Your task to perform on an android device: What's on my calendar today? Image 0: 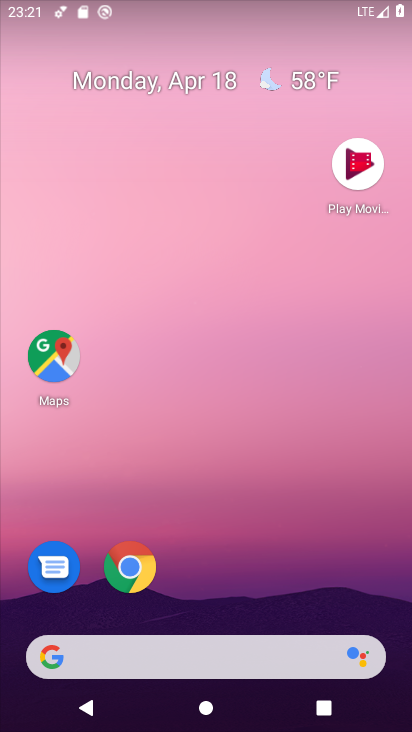
Step 0: click (405, 580)
Your task to perform on an android device: What's on my calendar today? Image 1: 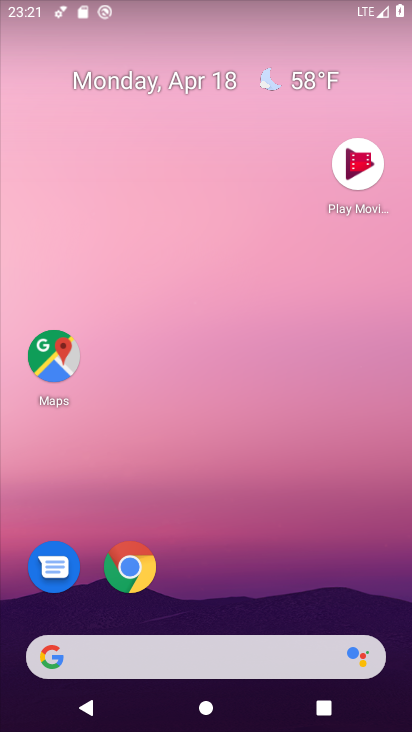
Step 1: drag from (235, 614) to (262, 143)
Your task to perform on an android device: What's on my calendar today? Image 2: 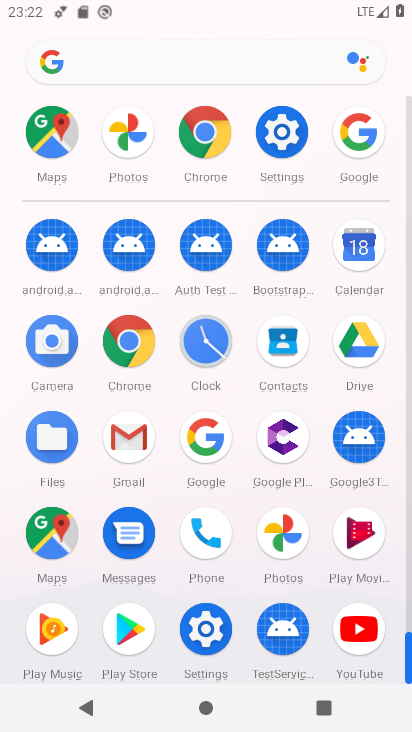
Step 2: click (275, 120)
Your task to perform on an android device: What's on my calendar today? Image 3: 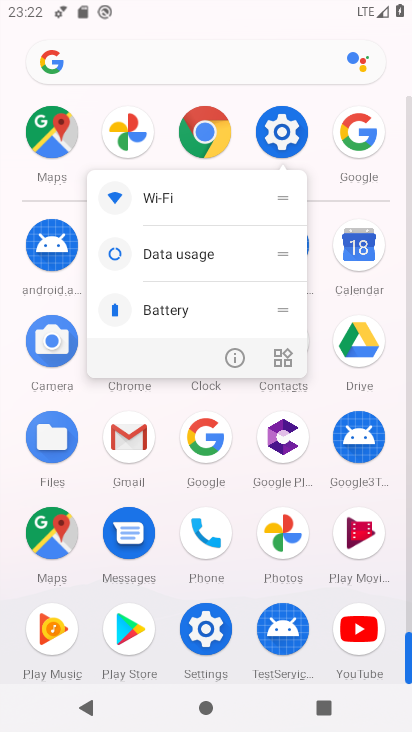
Step 3: click (351, 224)
Your task to perform on an android device: What's on my calendar today? Image 4: 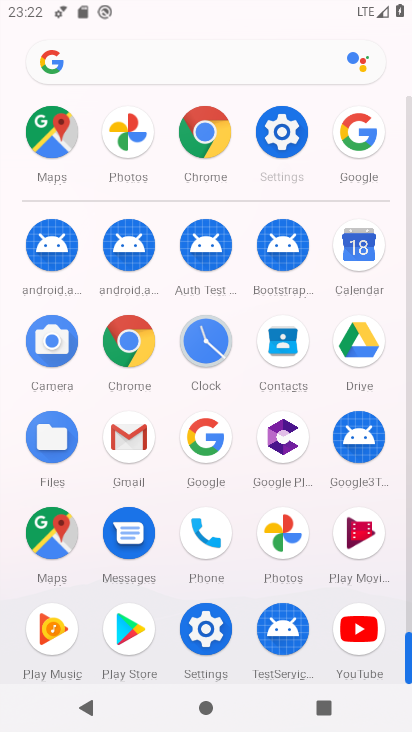
Step 4: click (347, 228)
Your task to perform on an android device: What's on my calendar today? Image 5: 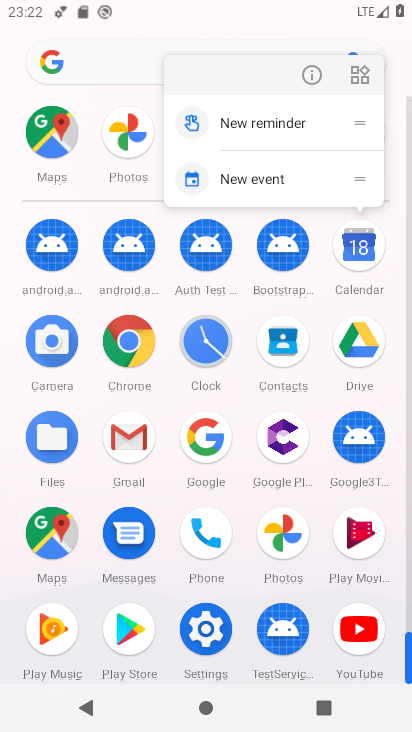
Step 5: click (311, 76)
Your task to perform on an android device: What's on my calendar today? Image 6: 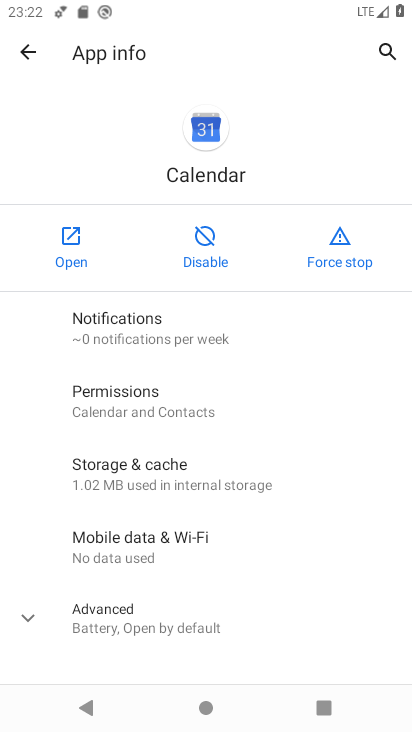
Step 6: click (56, 236)
Your task to perform on an android device: What's on my calendar today? Image 7: 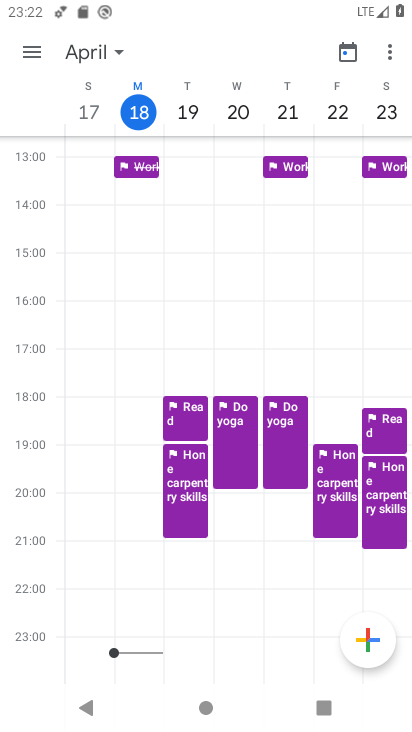
Step 7: drag from (341, 432) to (103, 432)
Your task to perform on an android device: What's on my calendar today? Image 8: 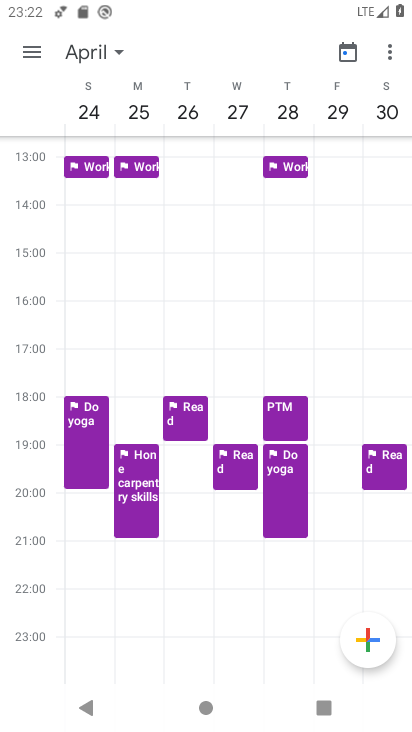
Step 8: drag from (179, 438) to (404, 395)
Your task to perform on an android device: What's on my calendar today? Image 9: 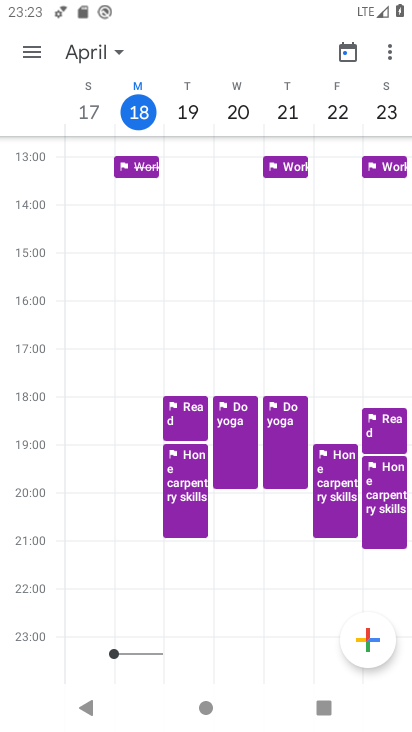
Step 9: drag from (273, 506) to (43, 485)
Your task to perform on an android device: What's on my calendar today? Image 10: 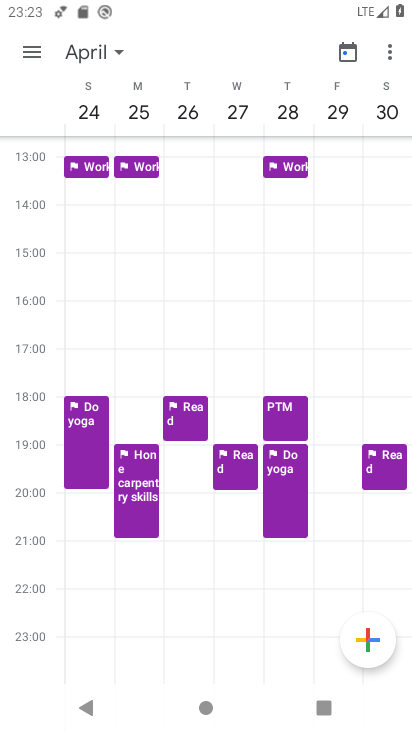
Step 10: drag from (332, 514) to (227, 513)
Your task to perform on an android device: What's on my calendar today? Image 11: 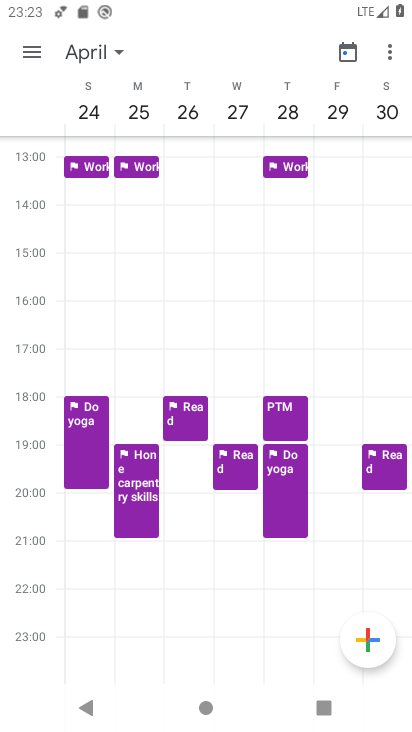
Step 11: drag from (158, 134) to (408, 124)
Your task to perform on an android device: What's on my calendar today? Image 12: 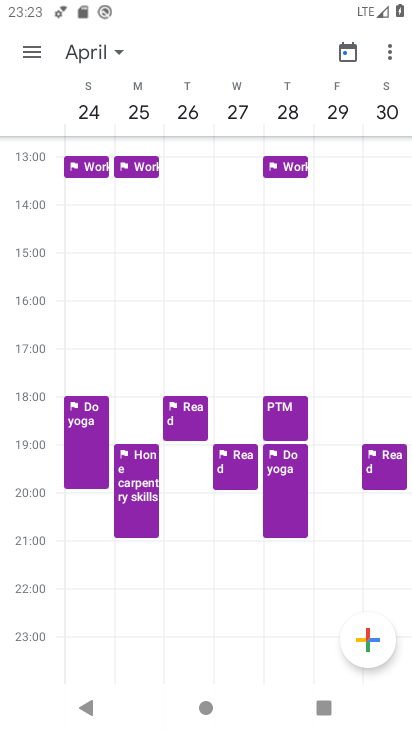
Step 12: drag from (100, 103) to (403, 100)
Your task to perform on an android device: What's on my calendar today? Image 13: 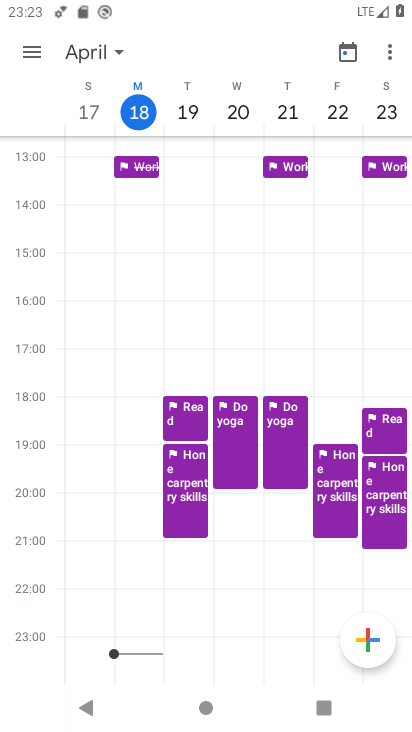
Step 13: drag from (116, 116) to (186, 116)
Your task to perform on an android device: What's on my calendar today? Image 14: 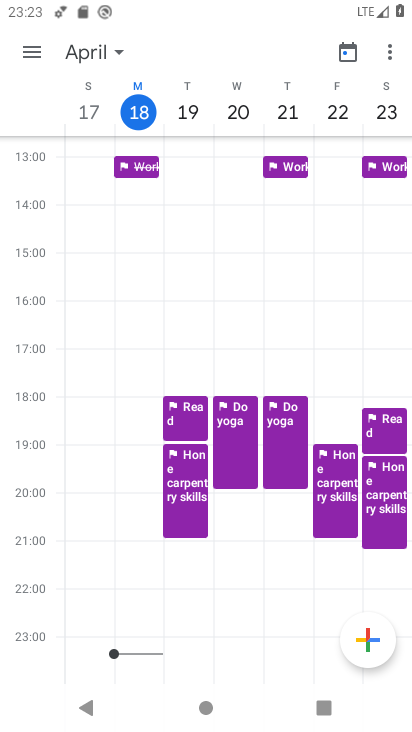
Step 14: click (151, 107)
Your task to perform on an android device: What's on my calendar today? Image 15: 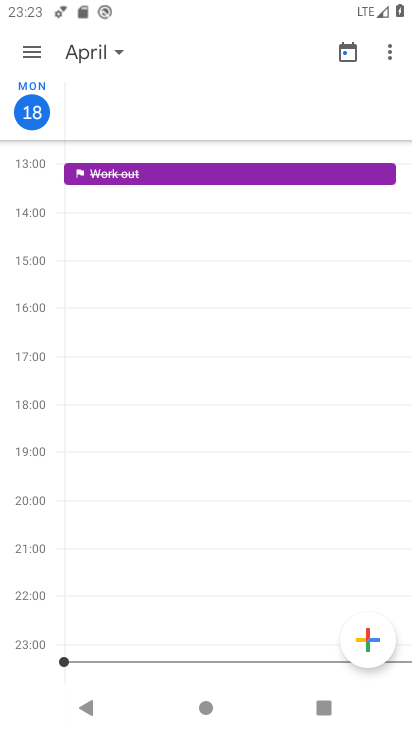
Step 15: task complete